Your task to perform on an android device: What is the news today? Image 0: 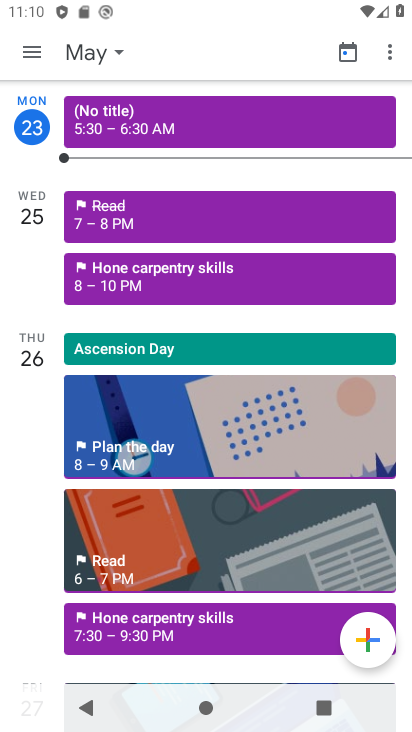
Step 0: press home button
Your task to perform on an android device: What is the news today? Image 1: 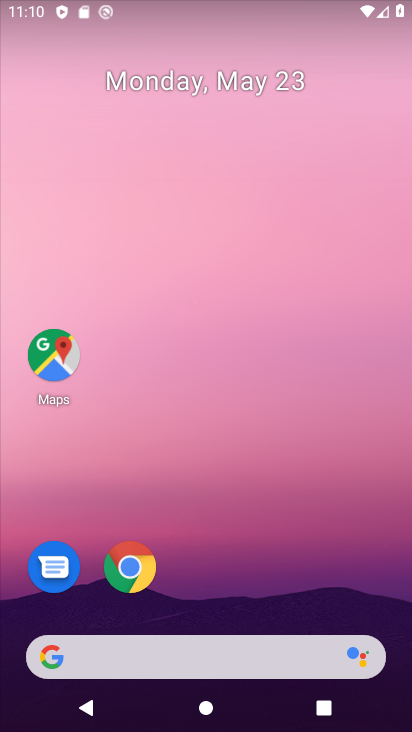
Step 1: drag from (325, 585) to (303, 188)
Your task to perform on an android device: What is the news today? Image 2: 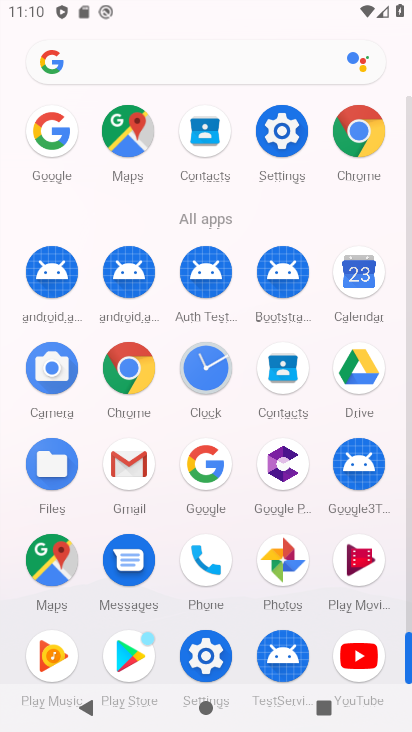
Step 2: click (351, 142)
Your task to perform on an android device: What is the news today? Image 3: 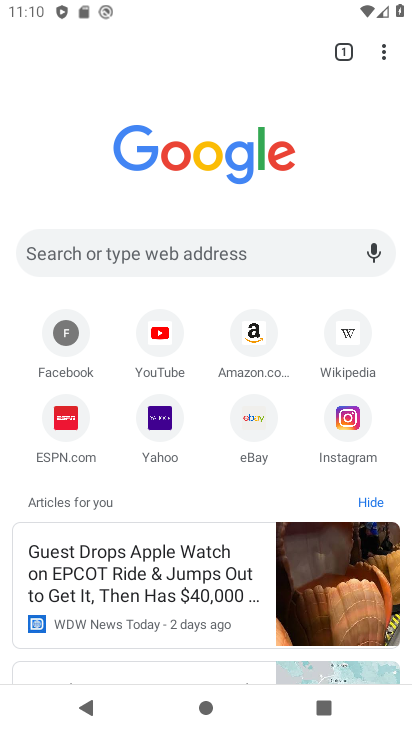
Step 3: click (201, 267)
Your task to perform on an android device: What is the news today? Image 4: 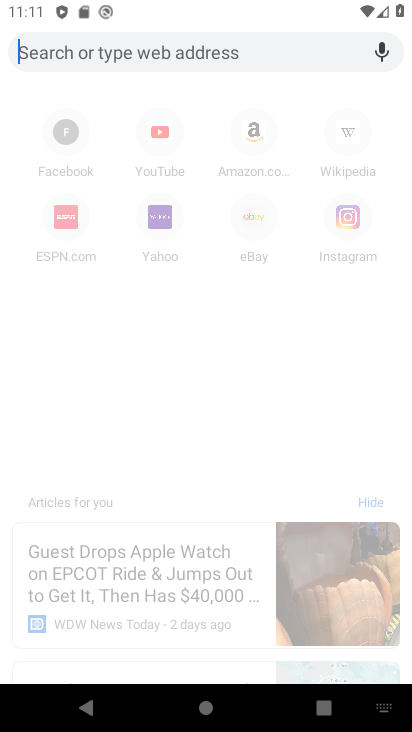
Step 4: type "what is the news today"
Your task to perform on an android device: What is the news today? Image 5: 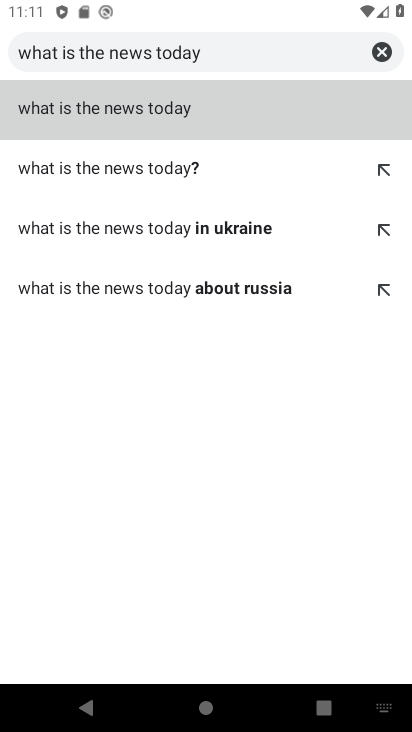
Step 5: click (137, 168)
Your task to perform on an android device: What is the news today? Image 6: 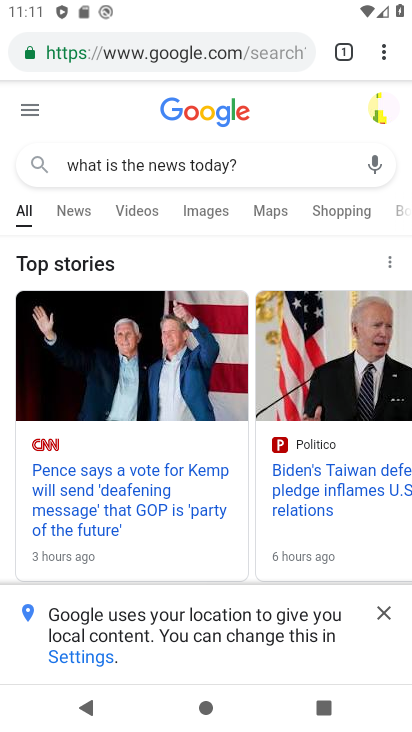
Step 6: task complete